Your task to perform on an android device: check android version Image 0: 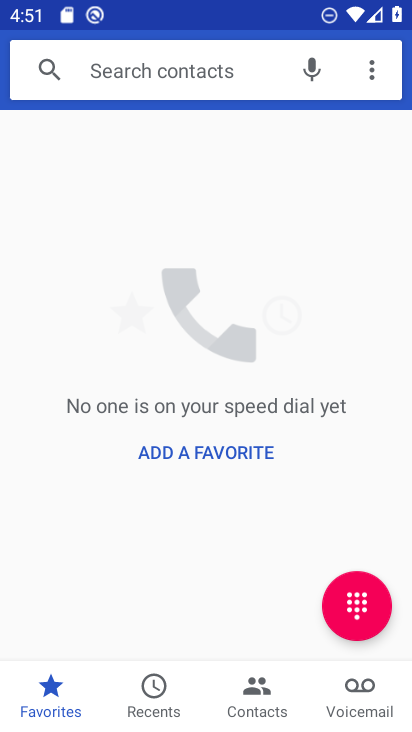
Step 0: press home button
Your task to perform on an android device: check android version Image 1: 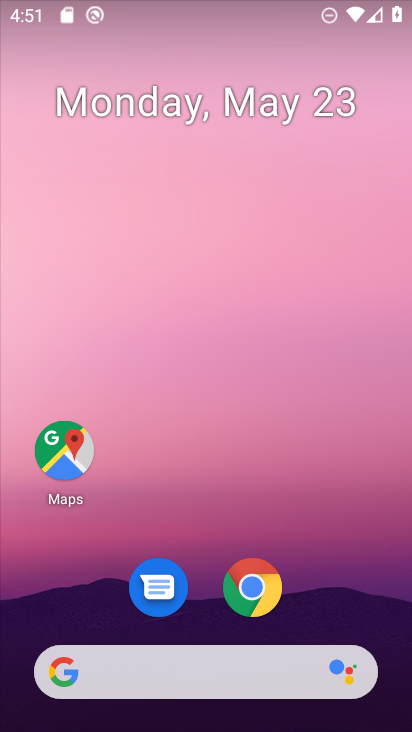
Step 1: drag from (207, 615) to (196, 18)
Your task to perform on an android device: check android version Image 2: 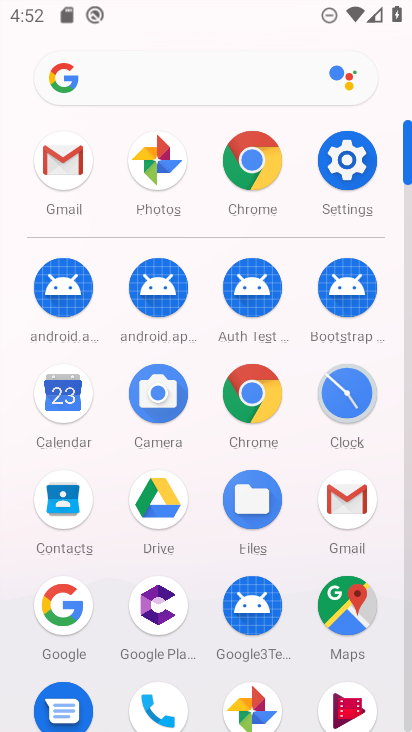
Step 2: click (368, 174)
Your task to perform on an android device: check android version Image 3: 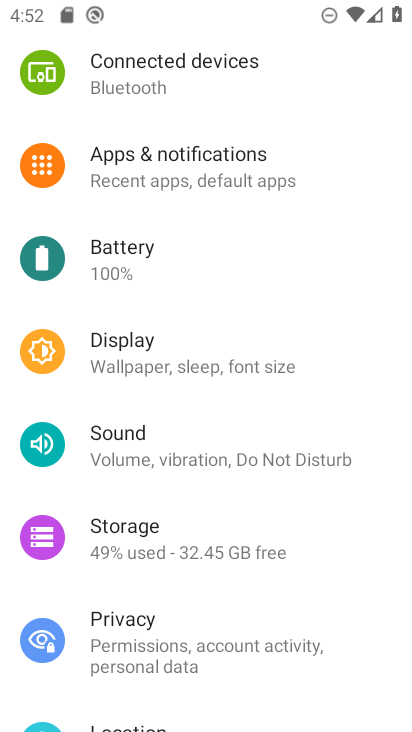
Step 3: drag from (197, 601) to (242, 199)
Your task to perform on an android device: check android version Image 4: 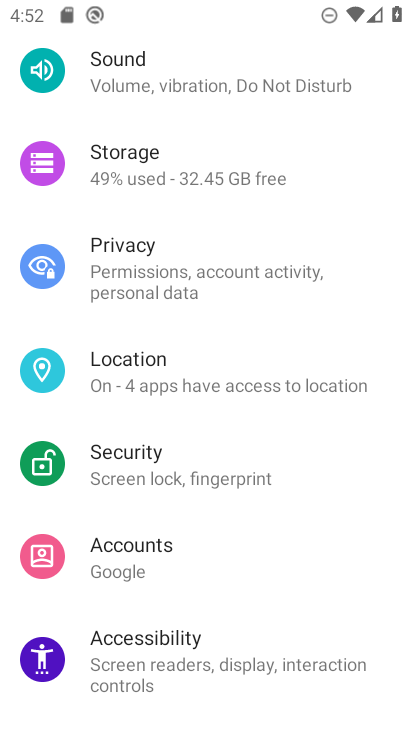
Step 4: drag from (212, 646) to (296, 184)
Your task to perform on an android device: check android version Image 5: 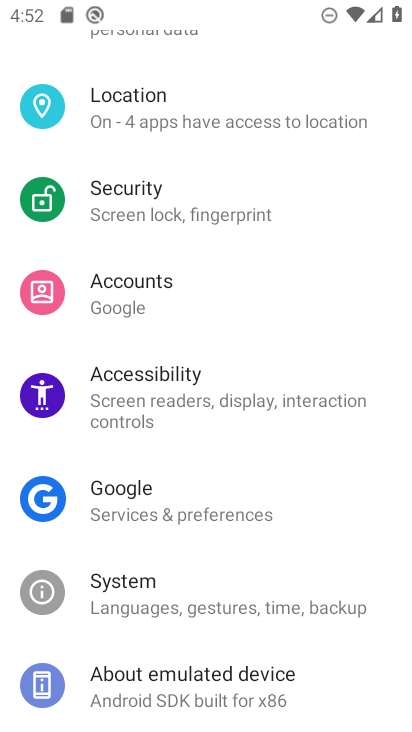
Step 5: click (173, 682)
Your task to perform on an android device: check android version Image 6: 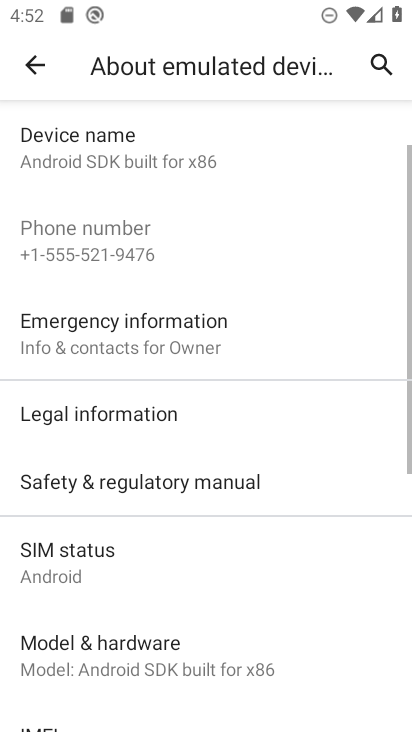
Step 6: drag from (184, 584) to (266, 162)
Your task to perform on an android device: check android version Image 7: 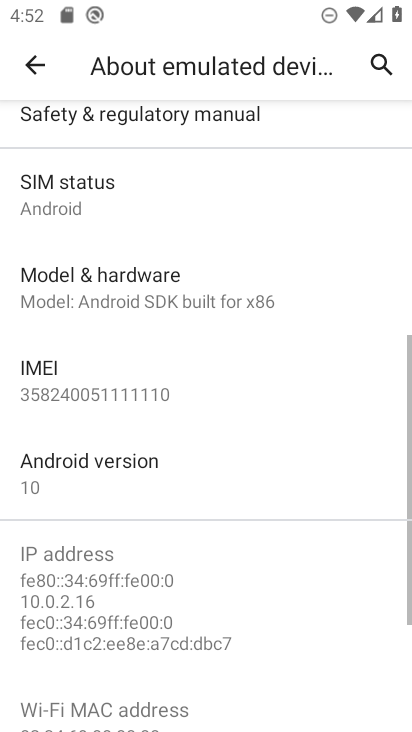
Step 7: click (144, 474)
Your task to perform on an android device: check android version Image 8: 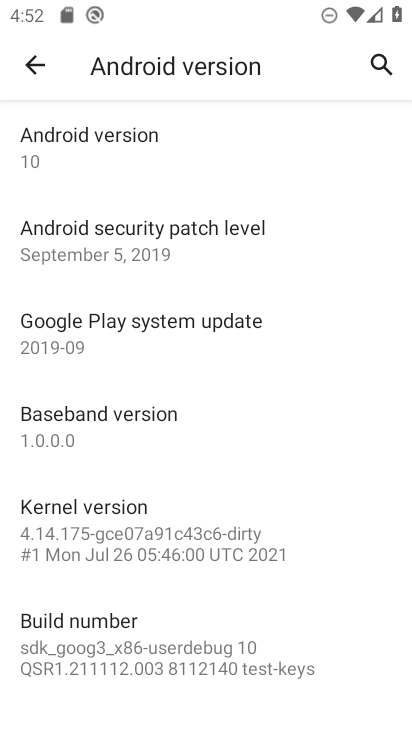
Step 8: task complete